Your task to perform on an android device: Show me popular videos on Youtube Image 0: 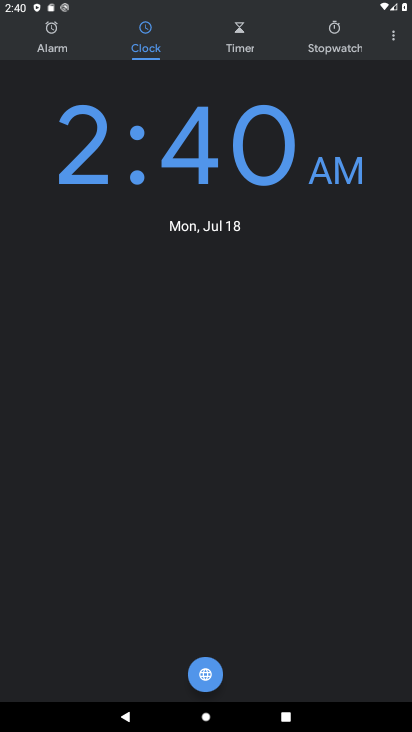
Step 0: press home button
Your task to perform on an android device: Show me popular videos on Youtube Image 1: 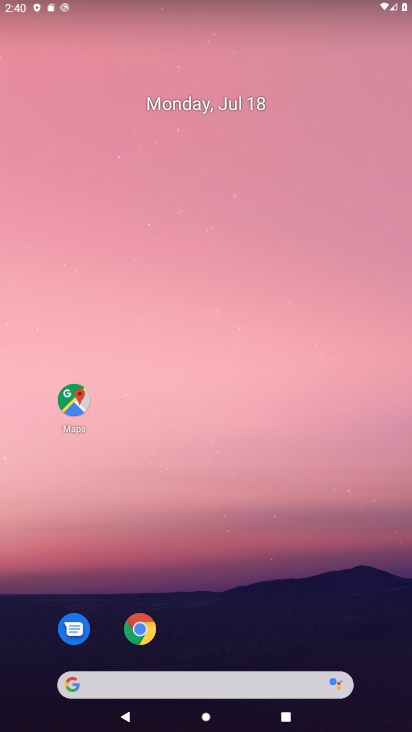
Step 1: drag from (208, 631) to (316, 12)
Your task to perform on an android device: Show me popular videos on Youtube Image 2: 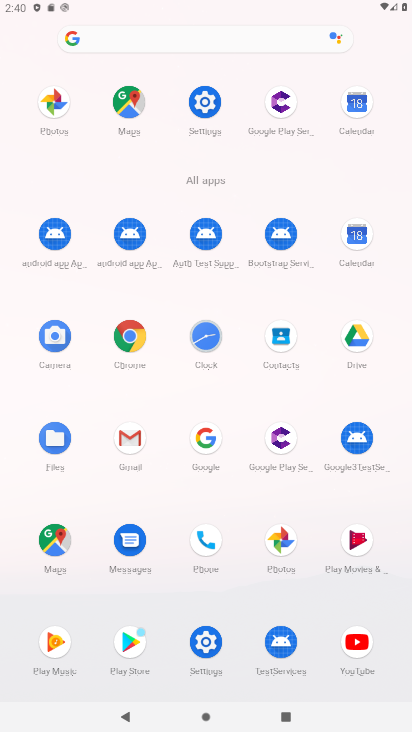
Step 2: click (355, 653)
Your task to perform on an android device: Show me popular videos on Youtube Image 3: 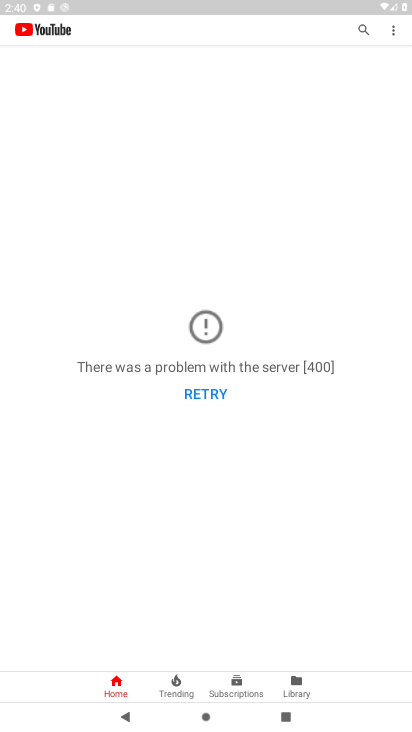
Step 3: click (202, 392)
Your task to perform on an android device: Show me popular videos on Youtube Image 4: 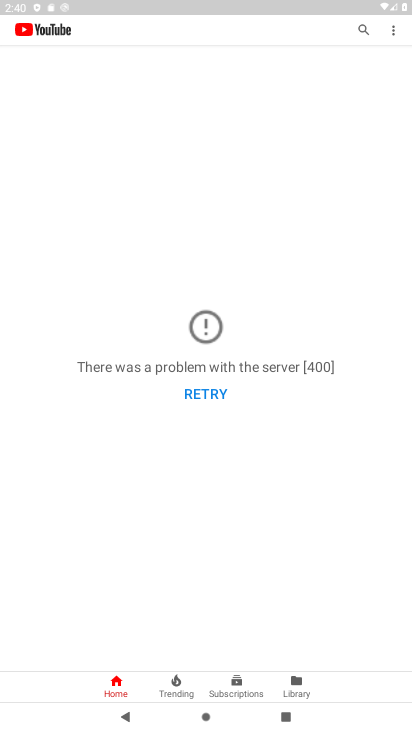
Step 4: click (204, 392)
Your task to perform on an android device: Show me popular videos on Youtube Image 5: 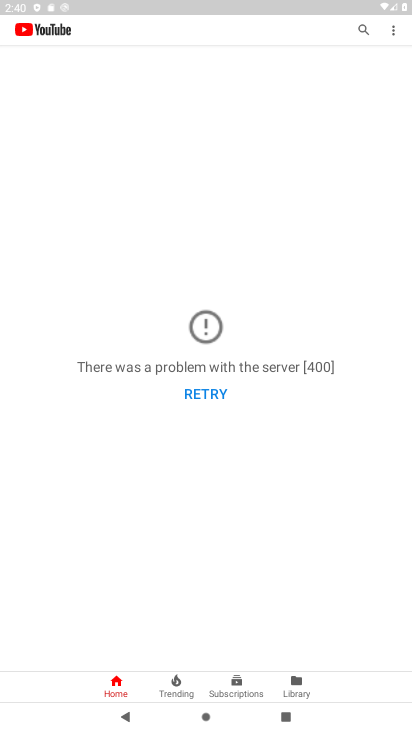
Step 5: click (218, 395)
Your task to perform on an android device: Show me popular videos on Youtube Image 6: 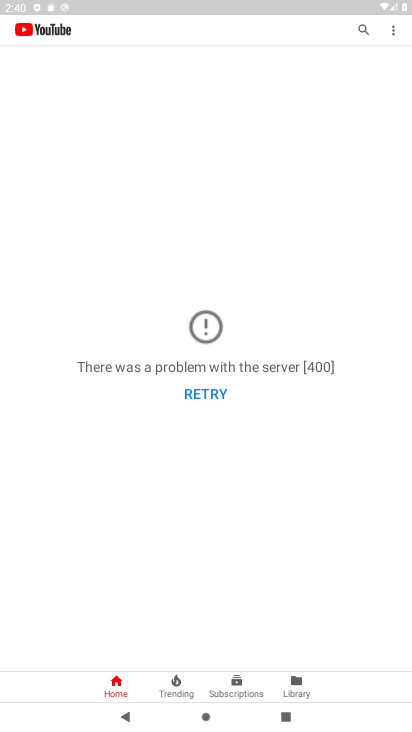
Step 6: click (222, 397)
Your task to perform on an android device: Show me popular videos on Youtube Image 7: 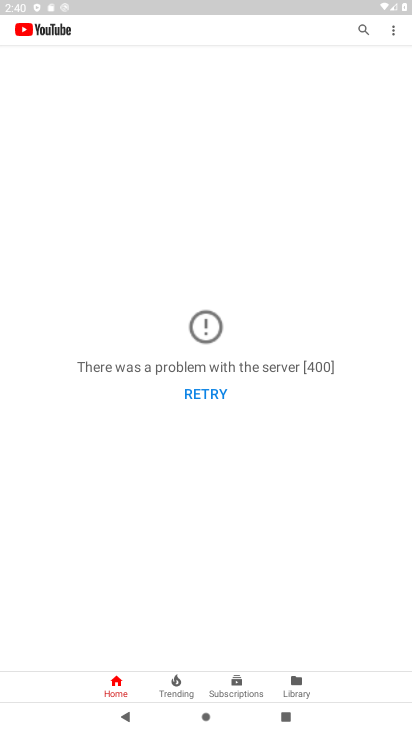
Step 7: click (221, 396)
Your task to perform on an android device: Show me popular videos on Youtube Image 8: 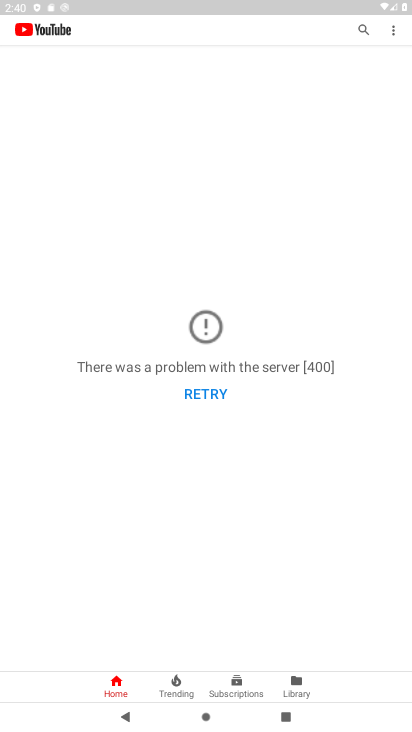
Step 8: task complete